Your task to perform on an android device: Open network settings Image 0: 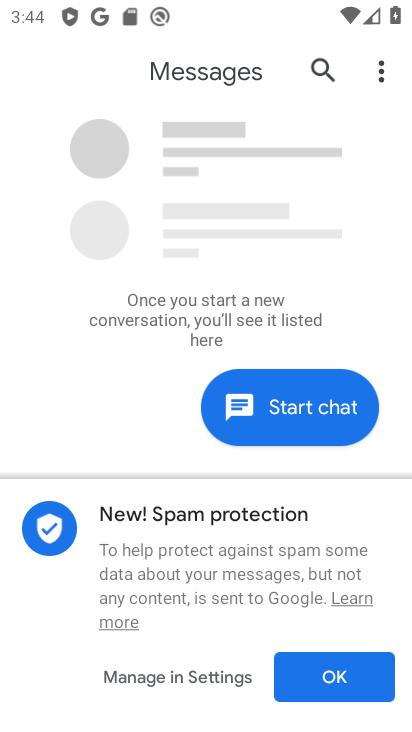
Step 0: drag from (286, 698) to (164, 80)
Your task to perform on an android device: Open network settings Image 1: 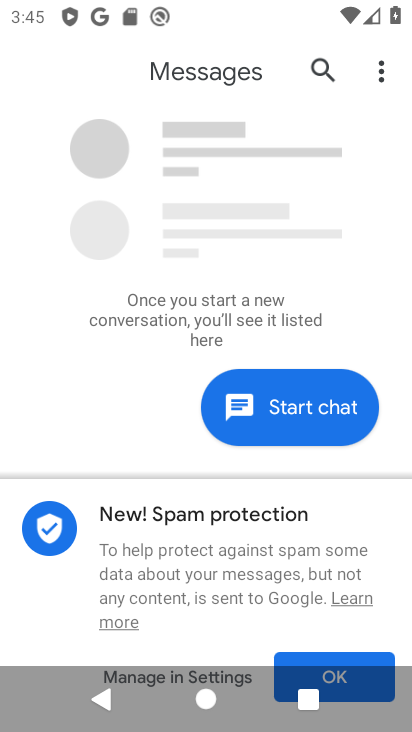
Step 1: press home button
Your task to perform on an android device: Open network settings Image 2: 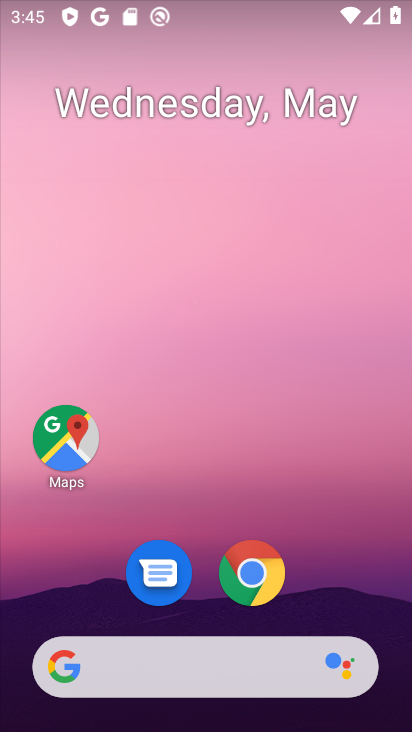
Step 2: drag from (203, 188) to (150, 0)
Your task to perform on an android device: Open network settings Image 3: 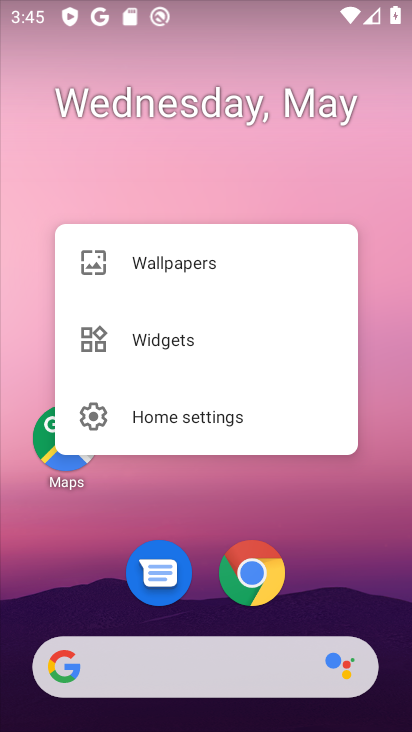
Step 3: click (332, 531)
Your task to perform on an android device: Open network settings Image 4: 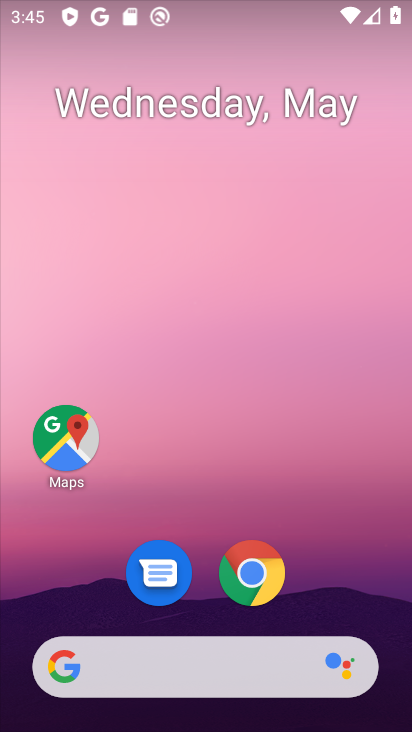
Step 4: drag from (263, 693) to (170, 16)
Your task to perform on an android device: Open network settings Image 5: 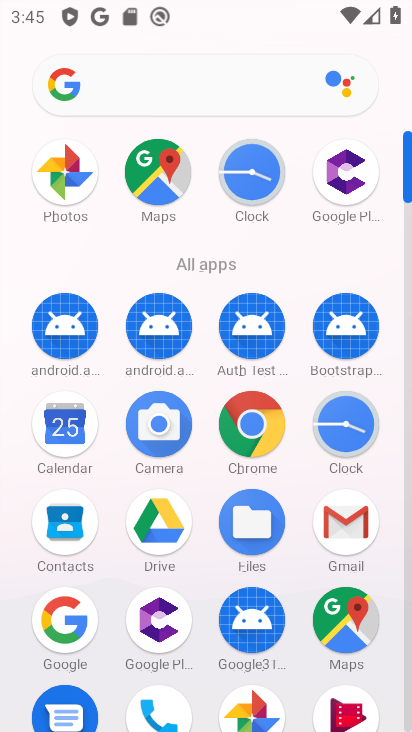
Step 5: drag from (119, 575) to (106, 197)
Your task to perform on an android device: Open network settings Image 6: 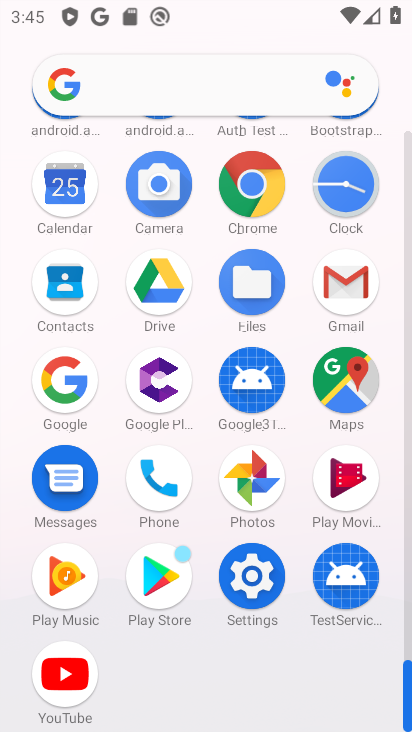
Step 6: click (253, 679)
Your task to perform on an android device: Open network settings Image 7: 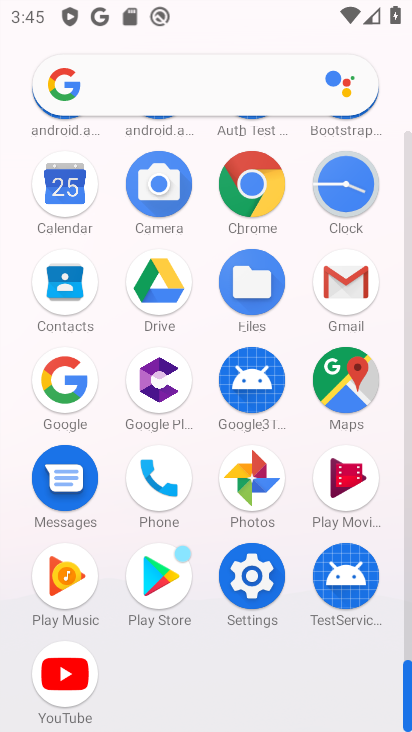
Step 7: click (254, 585)
Your task to perform on an android device: Open network settings Image 8: 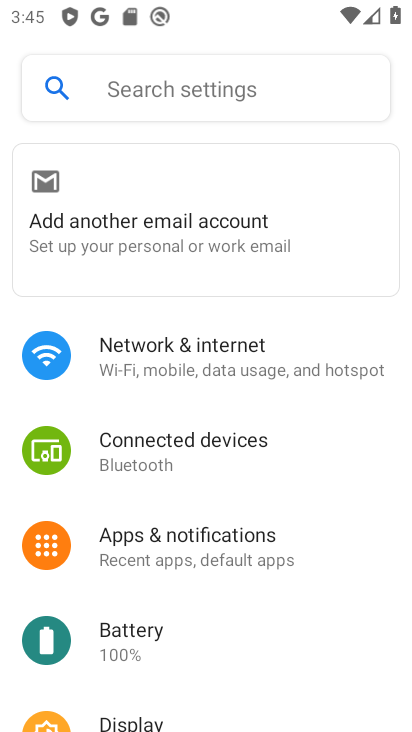
Step 8: click (181, 350)
Your task to perform on an android device: Open network settings Image 9: 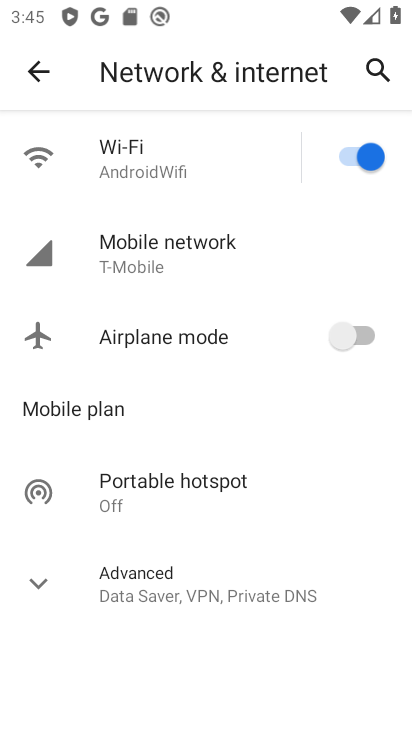
Step 9: task complete